Your task to perform on an android device: Go to Yahoo.com Image 0: 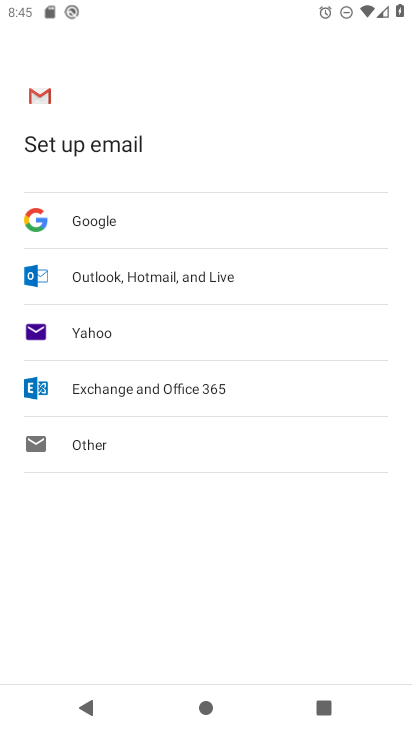
Step 0: press home button
Your task to perform on an android device: Go to Yahoo.com Image 1: 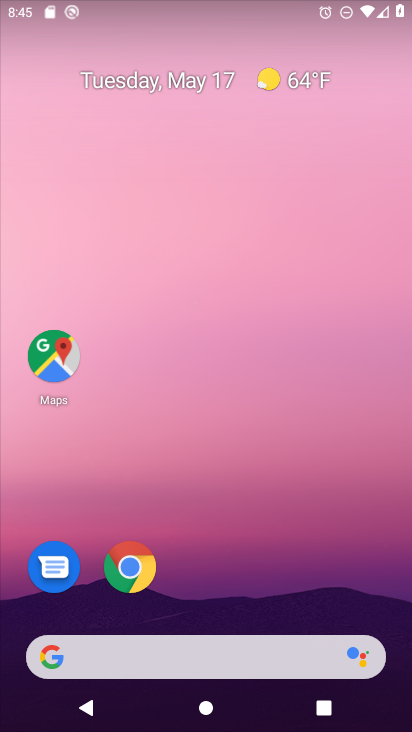
Step 1: drag from (382, 592) to (308, 107)
Your task to perform on an android device: Go to Yahoo.com Image 2: 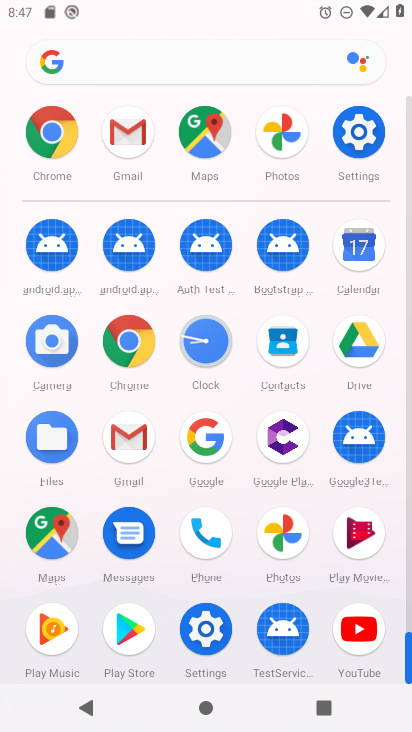
Step 2: click (214, 435)
Your task to perform on an android device: Go to Yahoo.com Image 3: 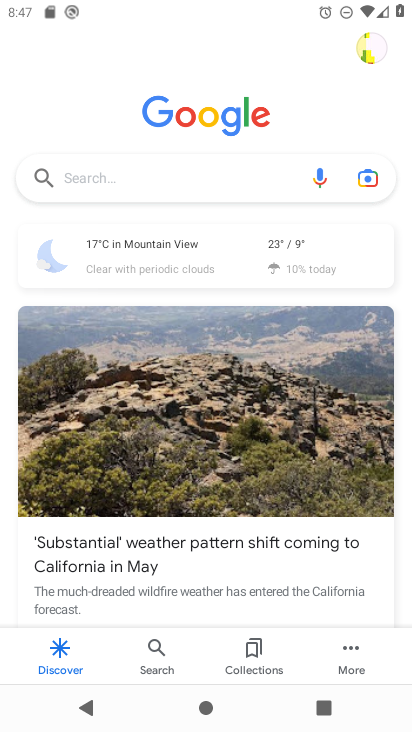
Step 3: click (207, 171)
Your task to perform on an android device: Go to Yahoo.com Image 4: 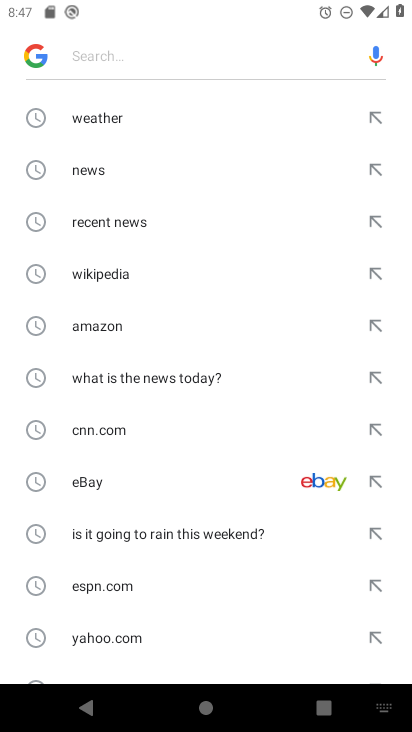
Step 4: click (133, 640)
Your task to perform on an android device: Go to Yahoo.com Image 5: 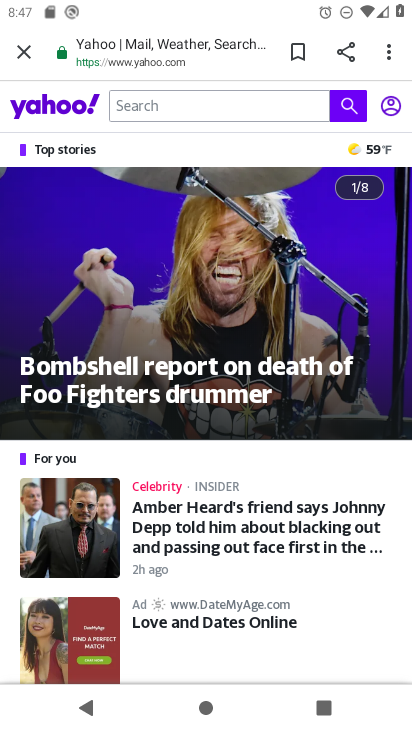
Step 5: task complete